Your task to perform on an android device: add a contact Image 0: 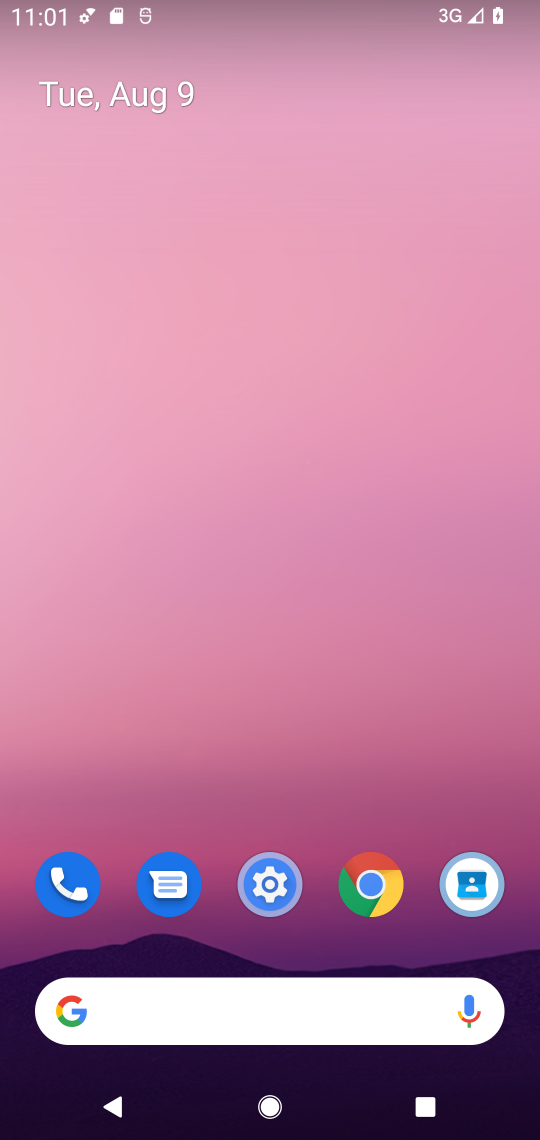
Step 0: drag from (403, 1046) to (291, 101)
Your task to perform on an android device: add a contact Image 1: 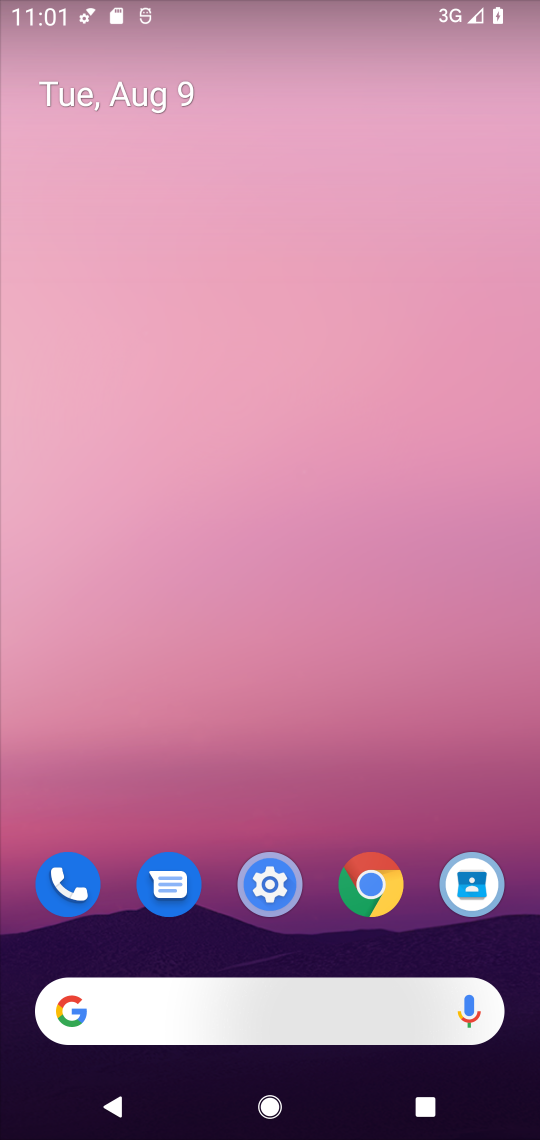
Step 1: drag from (370, 852) to (308, 412)
Your task to perform on an android device: add a contact Image 2: 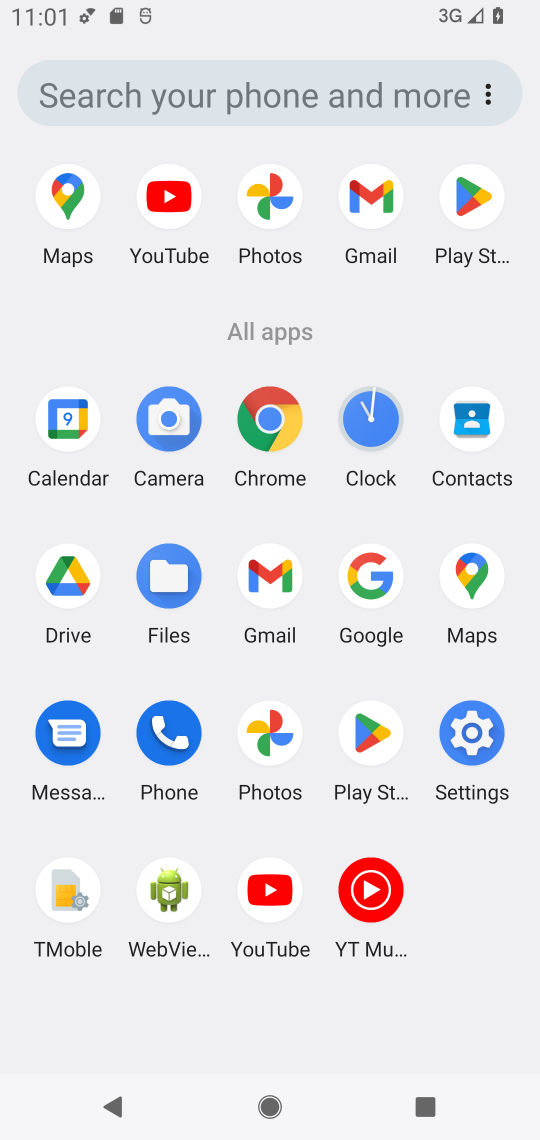
Step 2: click (480, 443)
Your task to perform on an android device: add a contact Image 3: 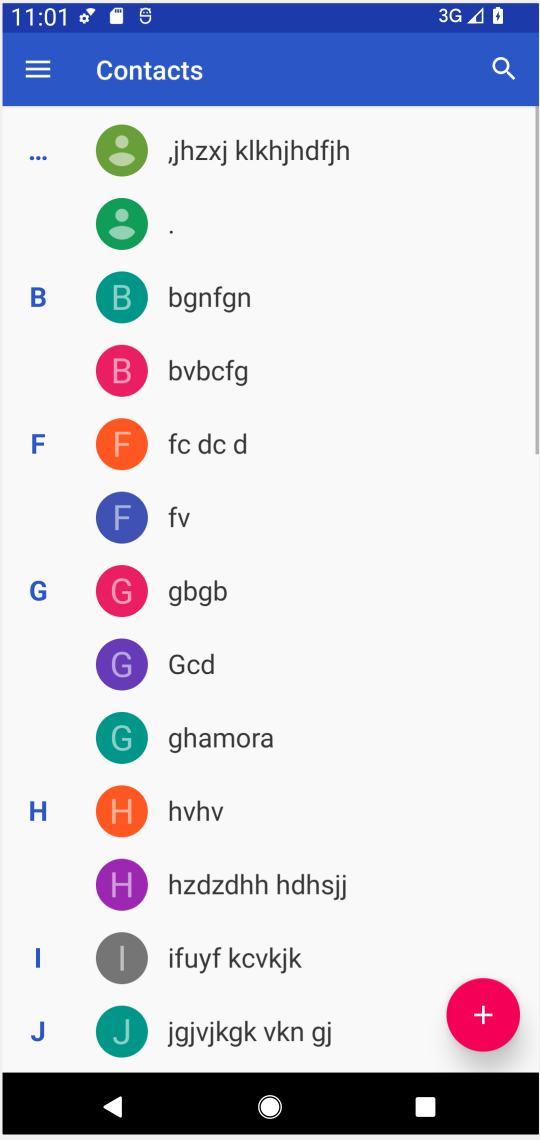
Step 3: click (477, 438)
Your task to perform on an android device: add a contact Image 4: 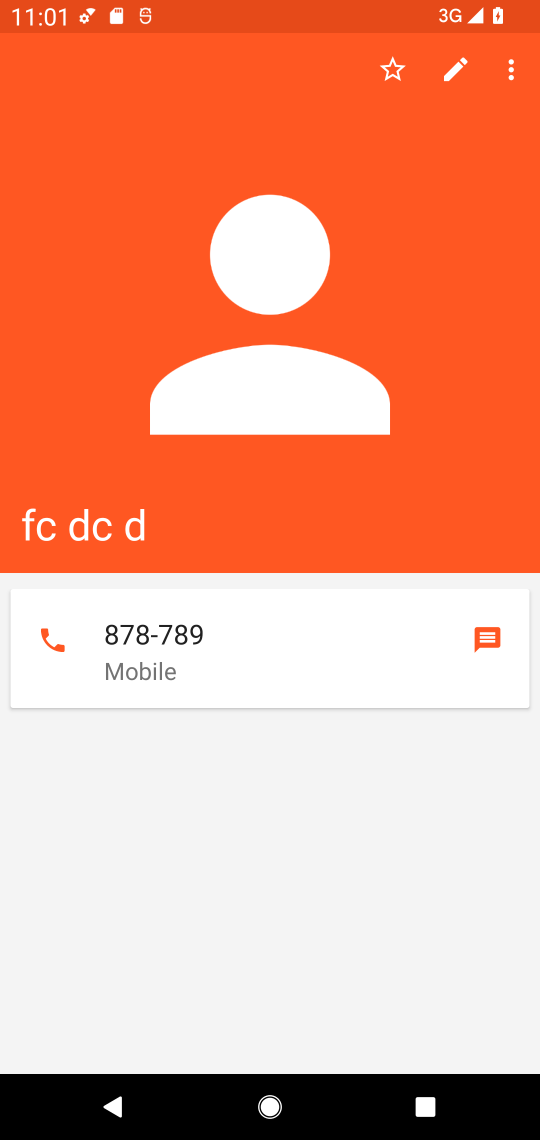
Step 4: press back button
Your task to perform on an android device: add a contact Image 5: 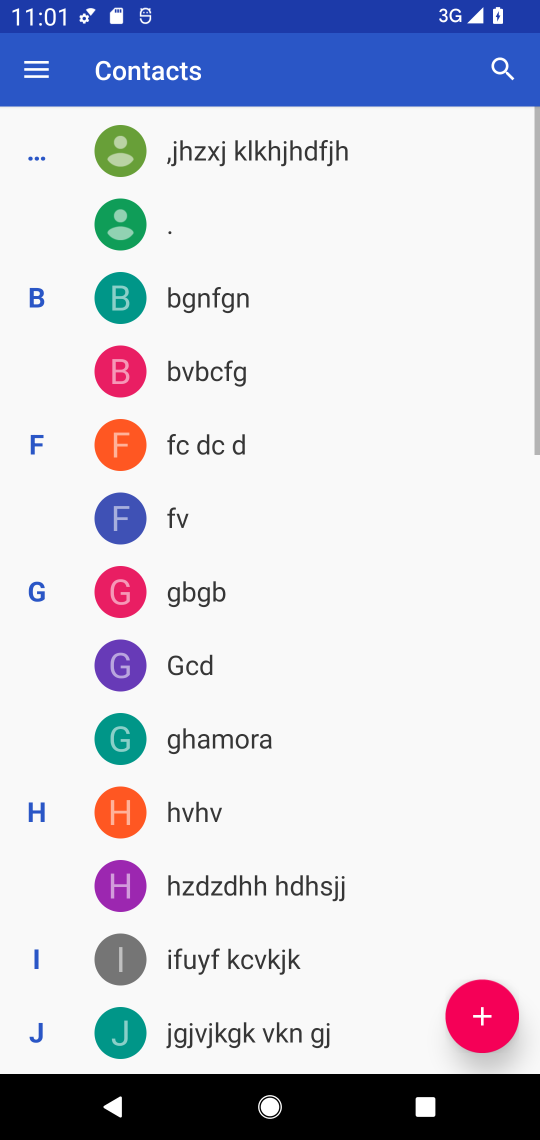
Step 5: click (476, 1006)
Your task to perform on an android device: add a contact Image 6: 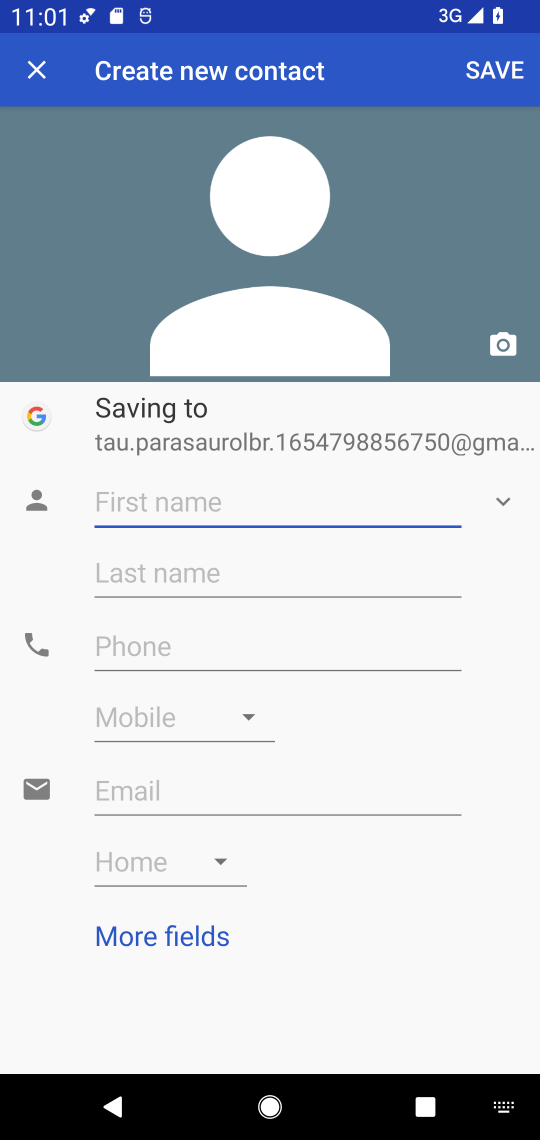
Step 6: type "gghfhfgh"
Your task to perform on an android device: add a contact Image 7: 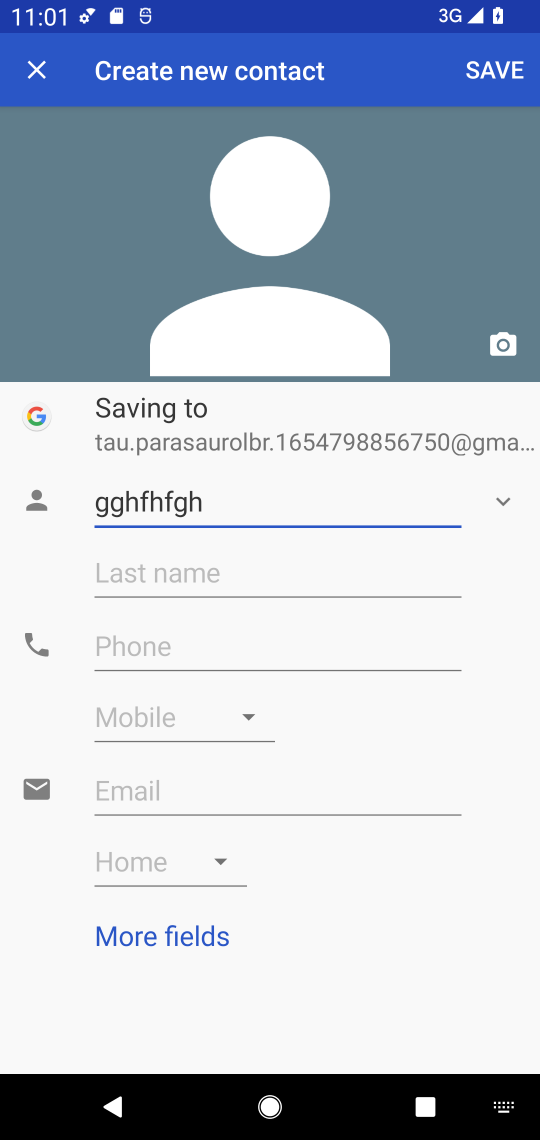
Step 7: click (106, 658)
Your task to perform on an android device: add a contact Image 8: 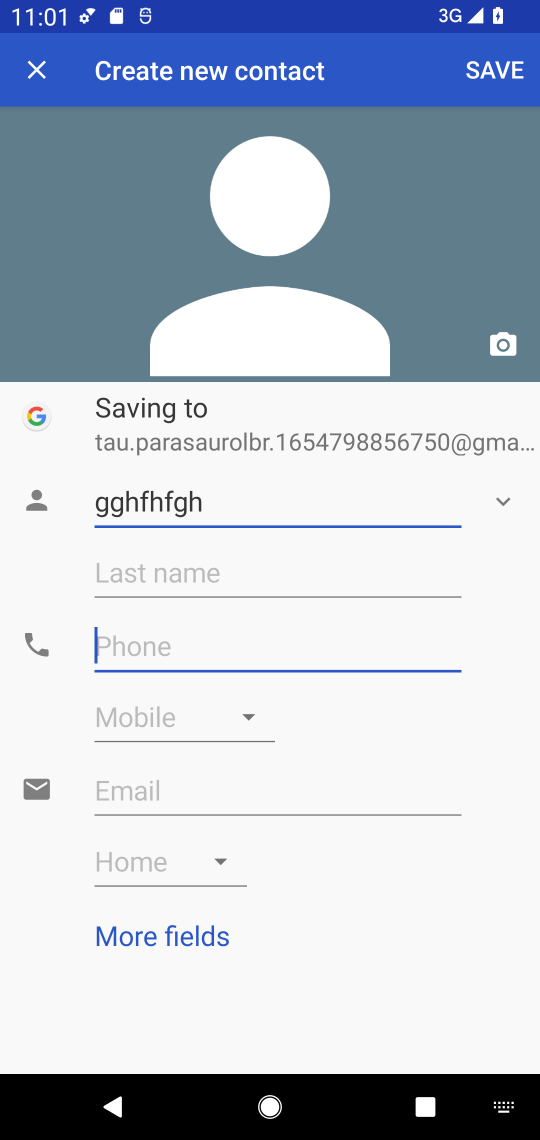
Step 8: click (104, 659)
Your task to perform on an android device: add a contact Image 9: 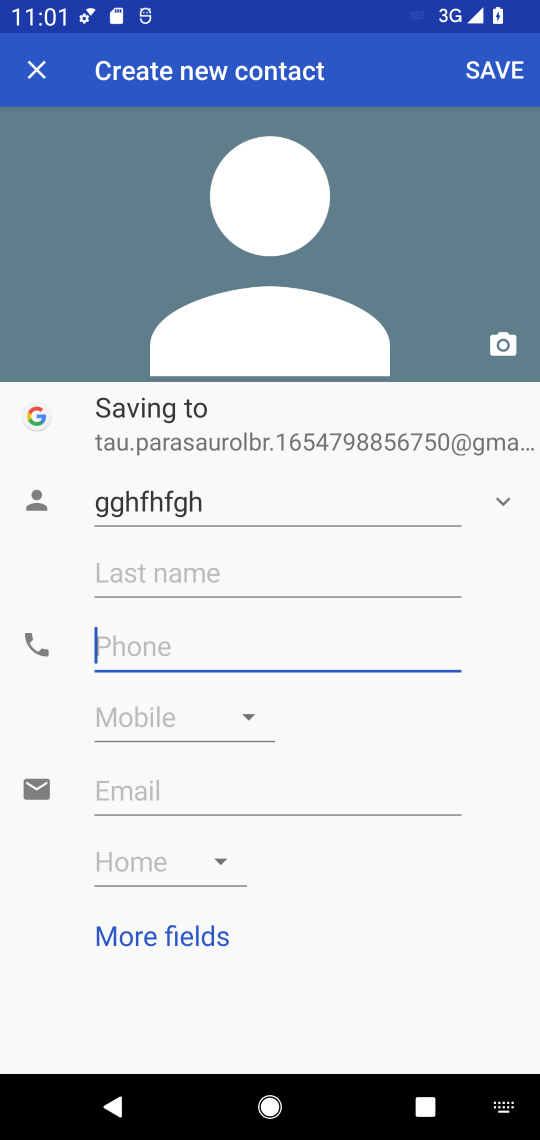
Step 9: click (106, 659)
Your task to perform on an android device: add a contact Image 10: 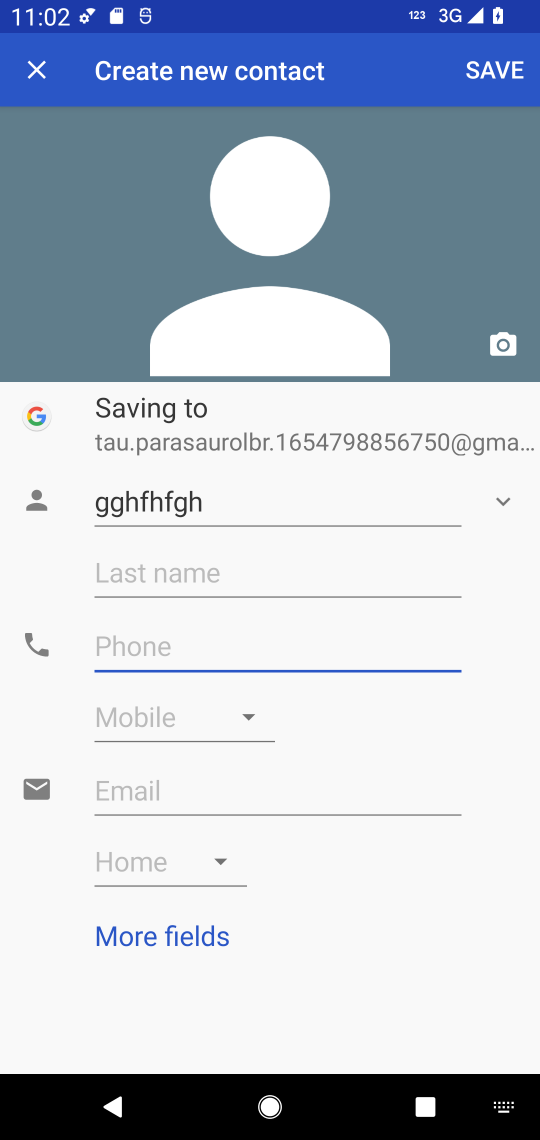
Step 10: type "67676767767"
Your task to perform on an android device: add a contact Image 11: 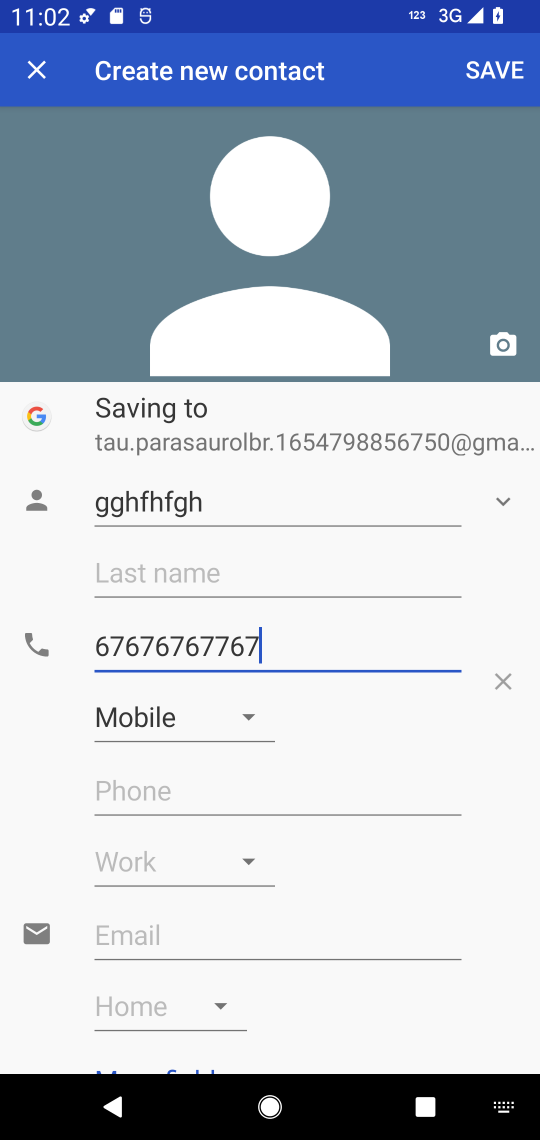
Step 11: click (493, 58)
Your task to perform on an android device: add a contact Image 12: 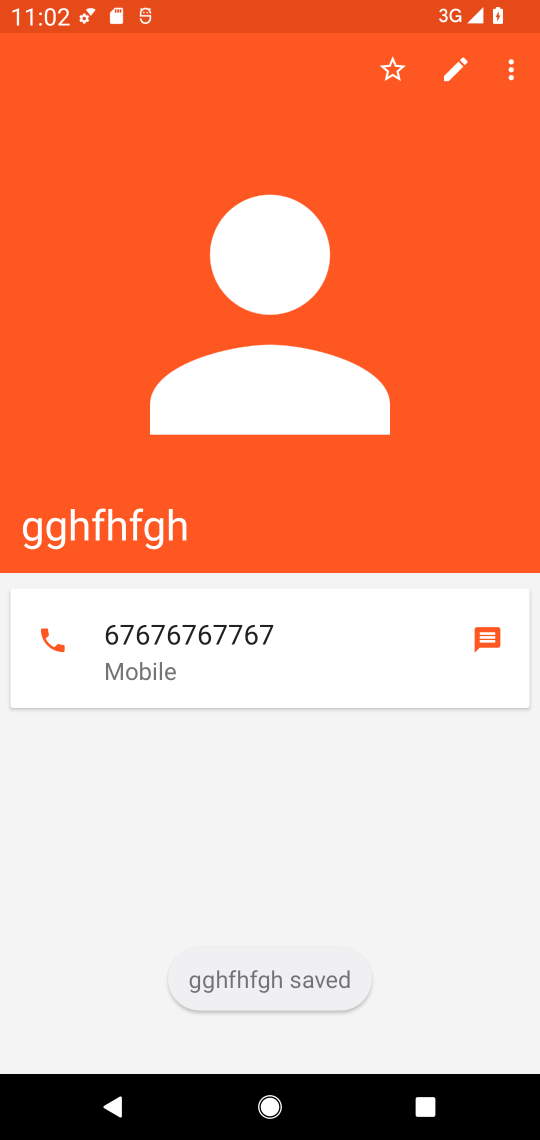
Step 12: task complete